Your task to perform on an android device: Search for razer deathadder on ebay, select the first entry, add it to the cart, then select checkout. Image 0: 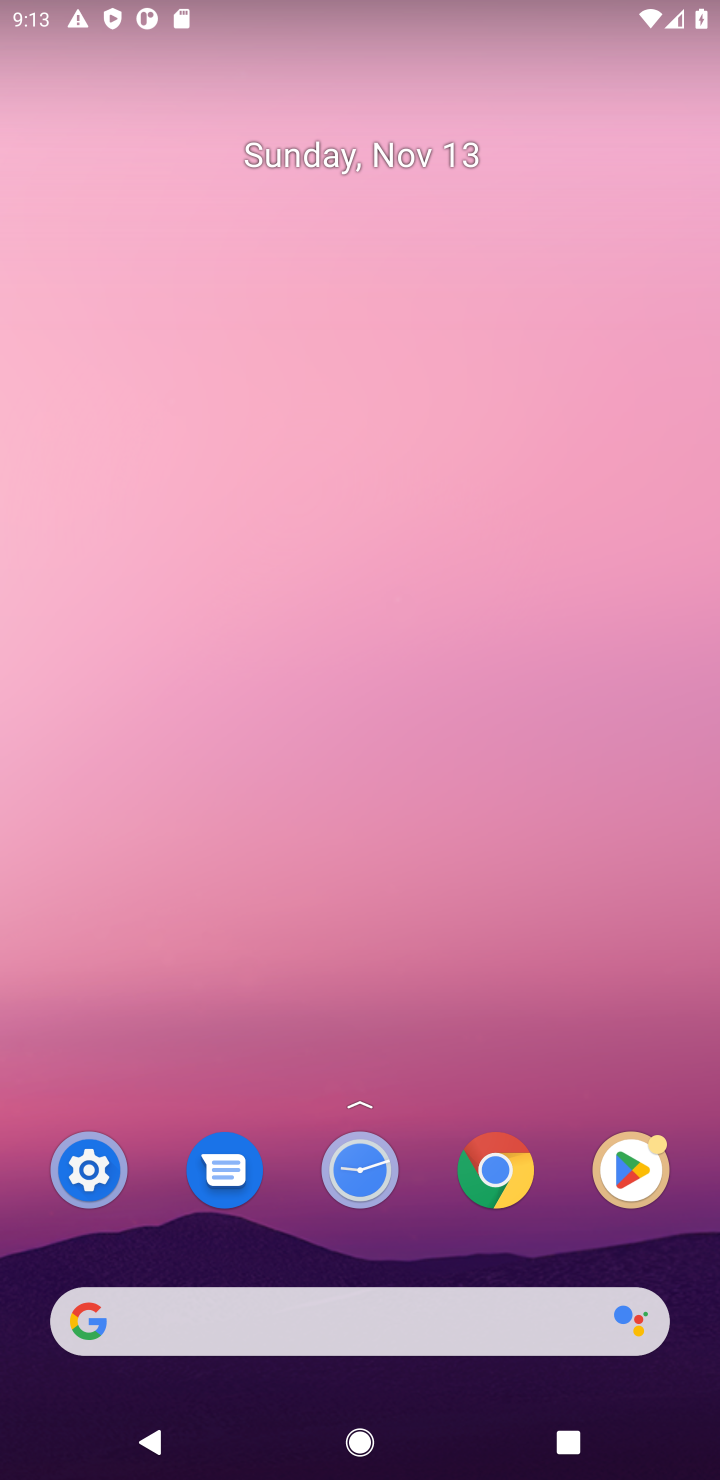
Step 0: click (471, 1316)
Your task to perform on an android device: Search for razer deathadder on ebay, select the first entry, add it to the cart, then select checkout. Image 1: 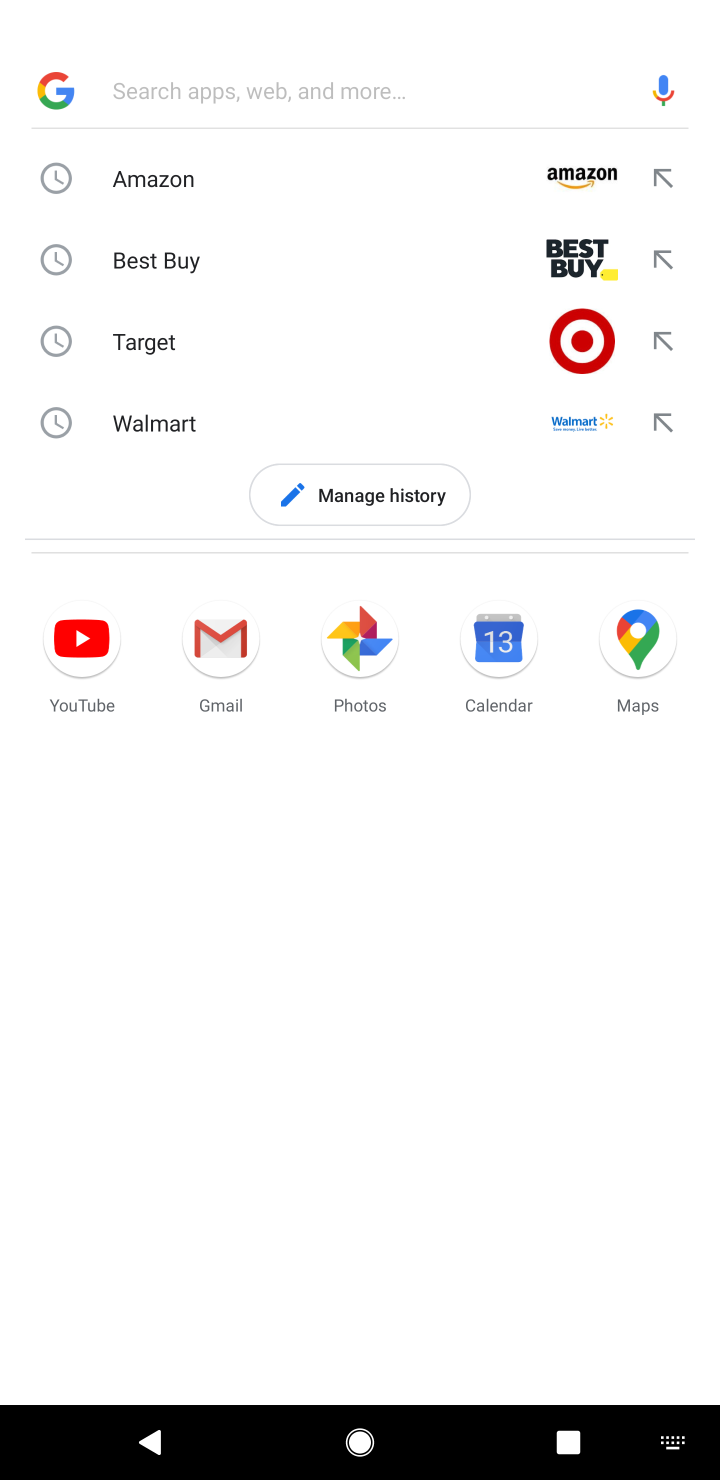
Step 1: type "ebay.com"
Your task to perform on an android device: Search for razer deathadder on ebay, select the first entry, add it to the cart, then select checkout. Image 2: 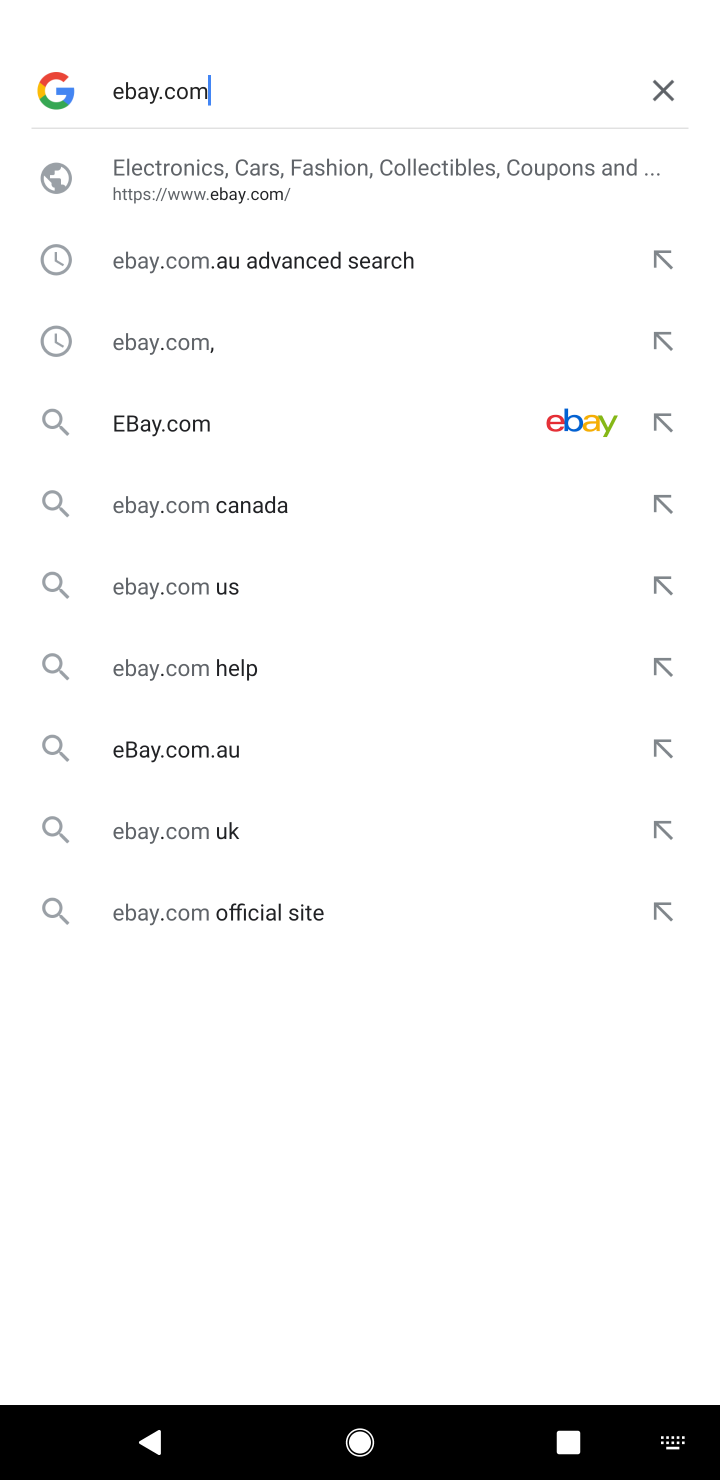
Step 2: click (229, 176)
Your task to perform on an android device: Search for razer deathadder on ebay, select the first entry, add it to the cart, then select checkout. Image 3: 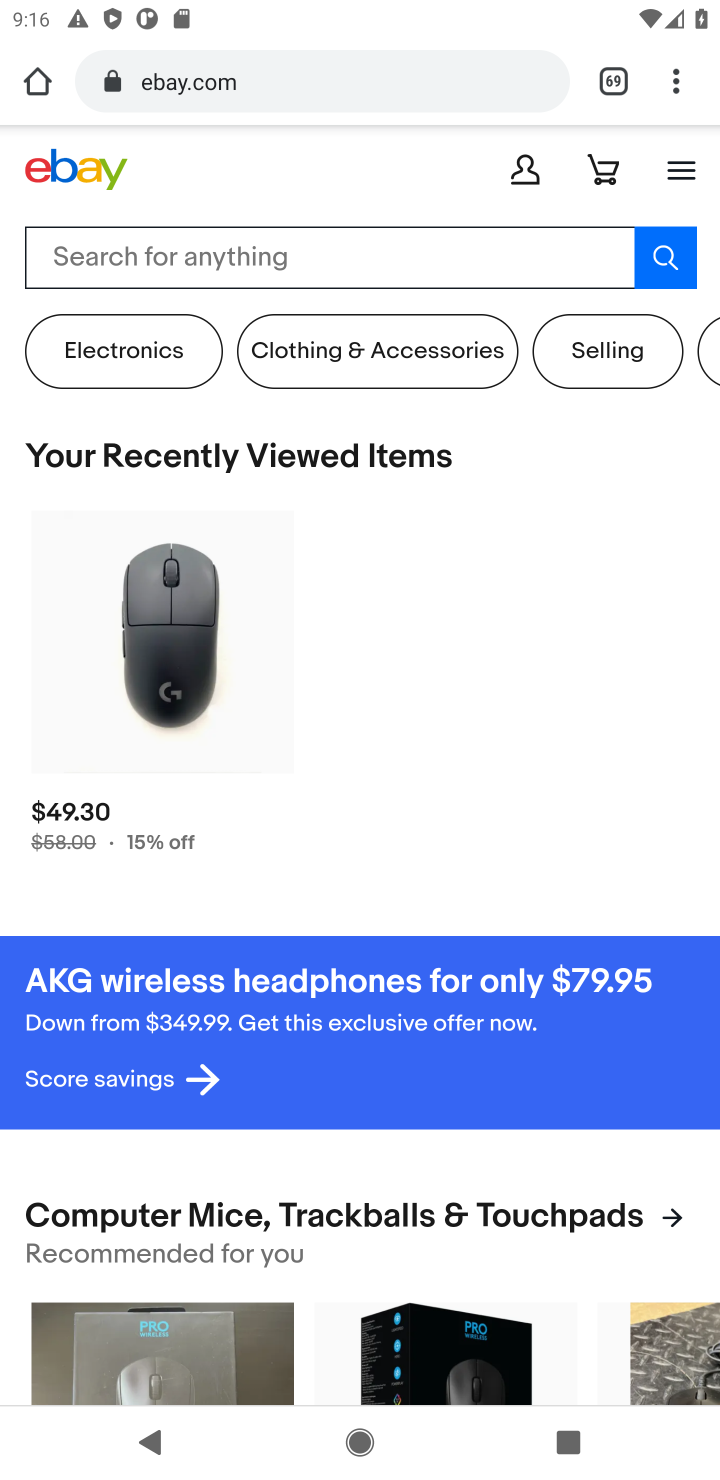
Step 3: task complete